Your task to perform on an android device: Is it going to rain this weekend? Image 0: 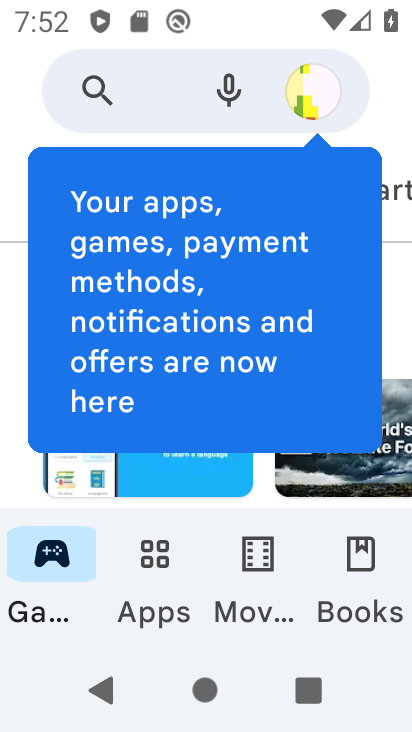
Step 0: press home button
Your task to perform on an android device: Is it going to rain this weekend? Image 1: 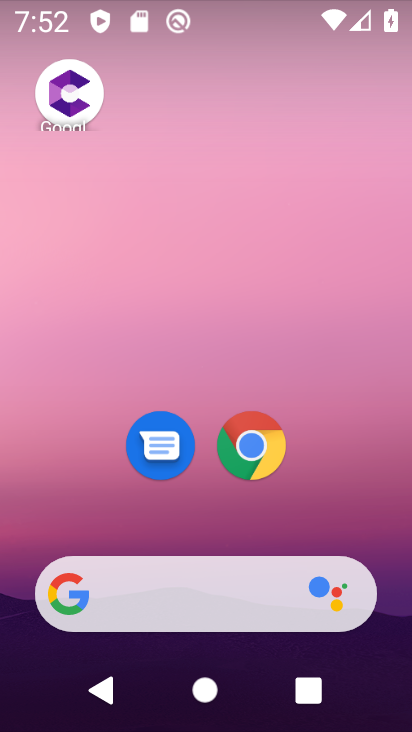
Step 1: click (135, 587)
Your task to perform on an android device: Is it going to rain this weekend? Image 2: 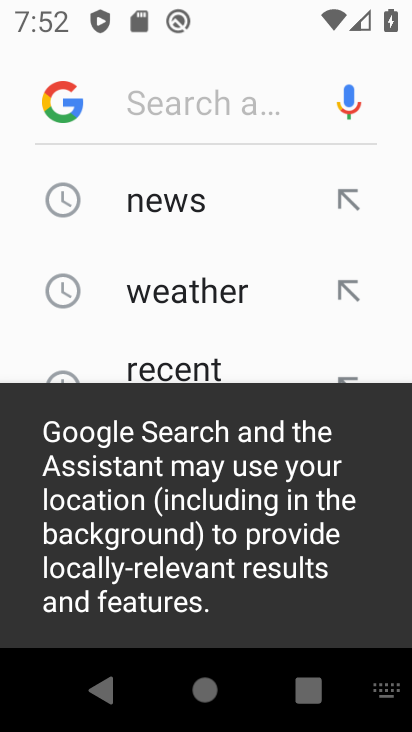
Step 2: click (172, 309)
Your task to perform on an android device: Is it going to rain this weekend? Image 3: 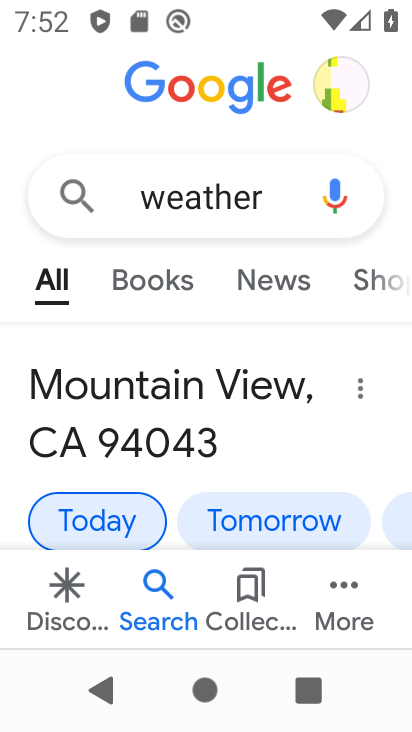
Step 3: click (388, 517)
Your task to perform on an android device: Is it going to rain this weekend? Image 4: 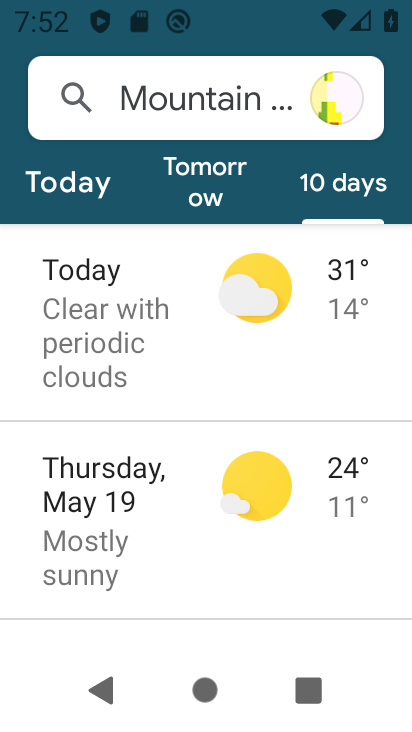
Step 4: task complete